Your task to perform on an android device: Search for seafood restaurants on Google Maps Image 0: 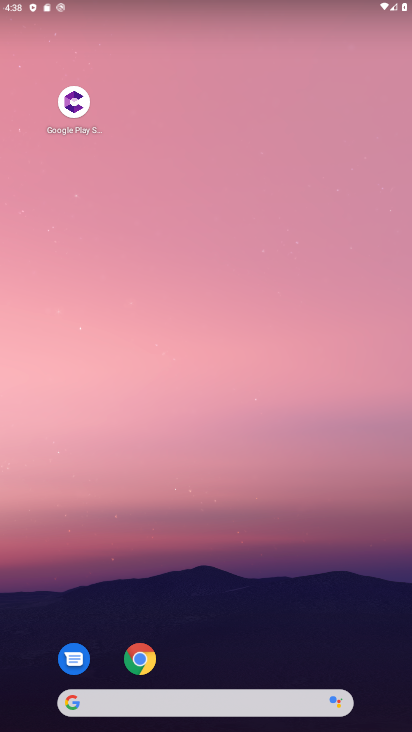
Step 0: drag from (196, 681) to (258, 199)
Your task to perform on an android device: Search for seafood restaurants on Google Maps Image 1: 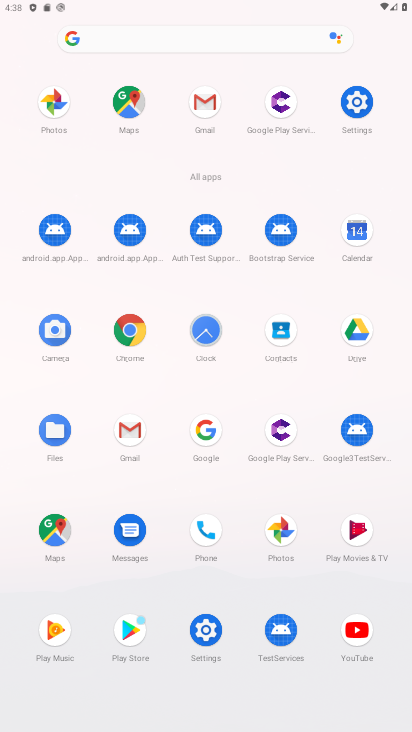
Step 1: click (68, 541)
Your task to perform on an android device: Search for seafood restaurants on Google Maps Image 2: 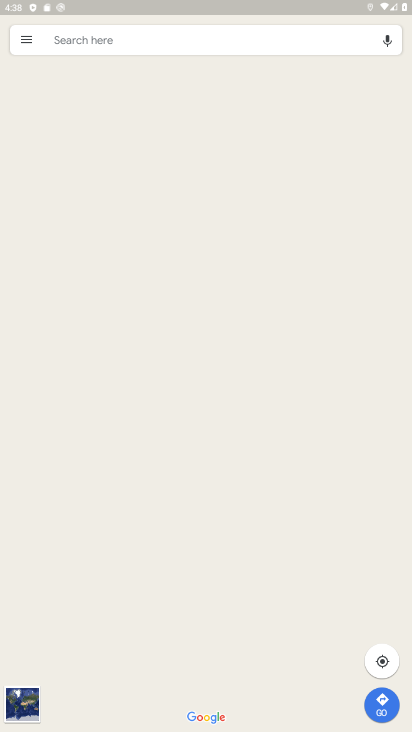
Step 2: click (154, 44)
Your task to perform on an android device: Search for seafood restaurants on Google Maps Image 3: 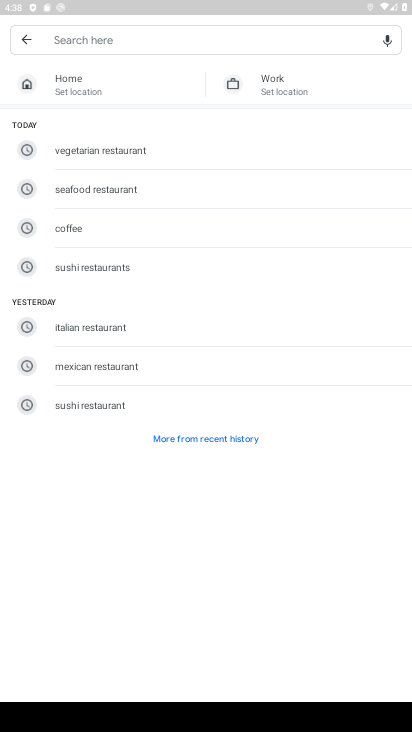
Step 3: type "seafood restaurants"
Your task to perform on an android device: Search for seafood restaurants on Google Maps Image 4: 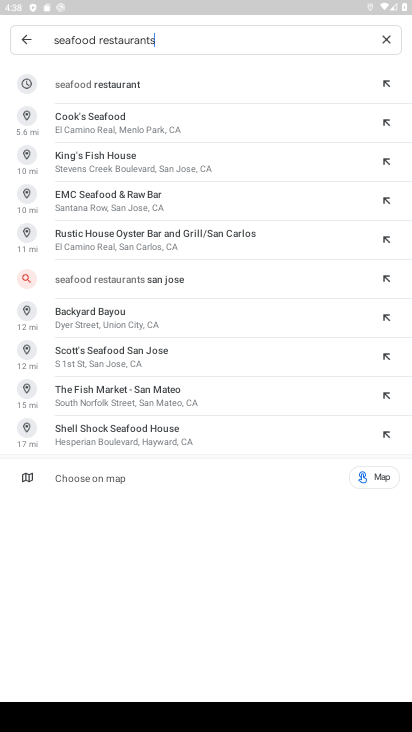
Step 4: click (164, 92)
Your task to perform on an android device: Search for seafood restaurants on Google Maps Image 5: 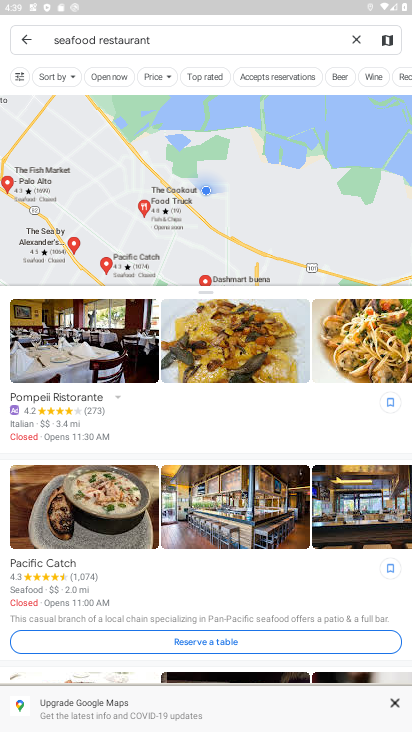
Step 5: task complete